Your task to perform on an android device: Open Yahoo.com Image 0: 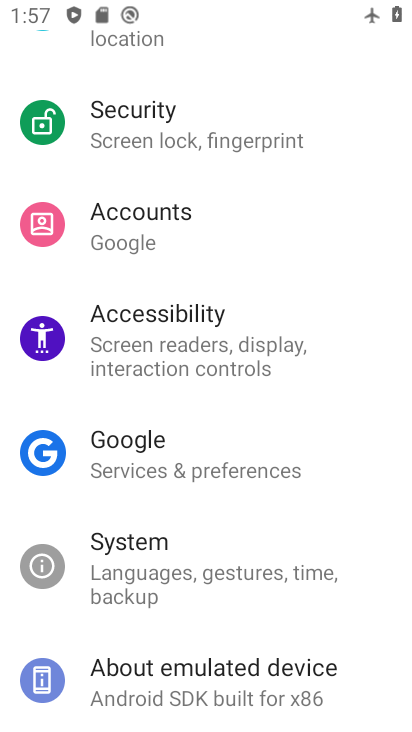
Step 0: press home button
Your task to perform on an android device: Open Yahoo.com Image 1: 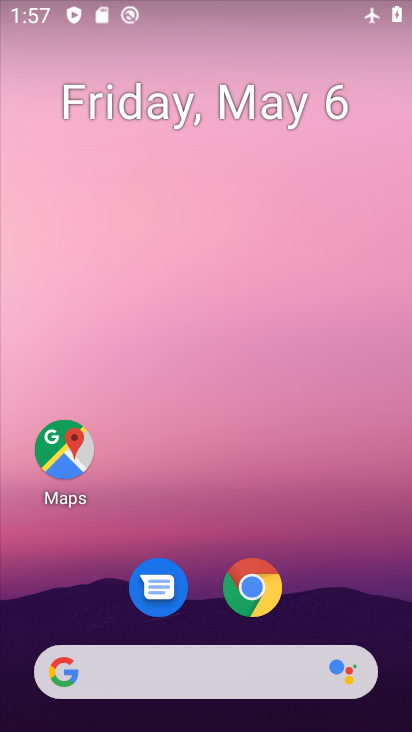
Step 1: click (242, 589)
Your task to perform on an android device: Open Yahoo.com Image 2: 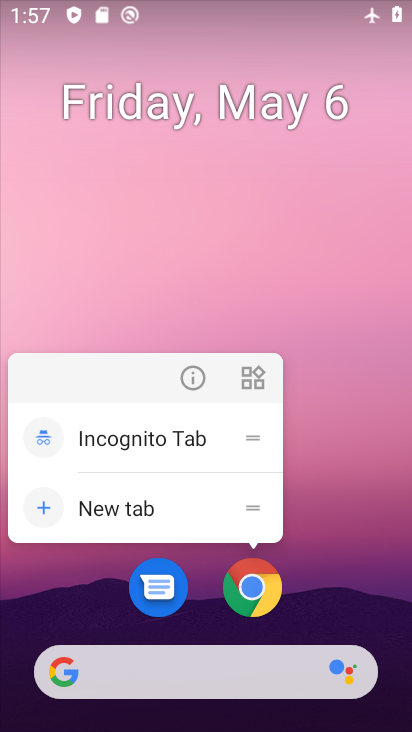
Step 2: click (242, 589)
Your task to perform on an android device: Open Yahoo.com Image 3: 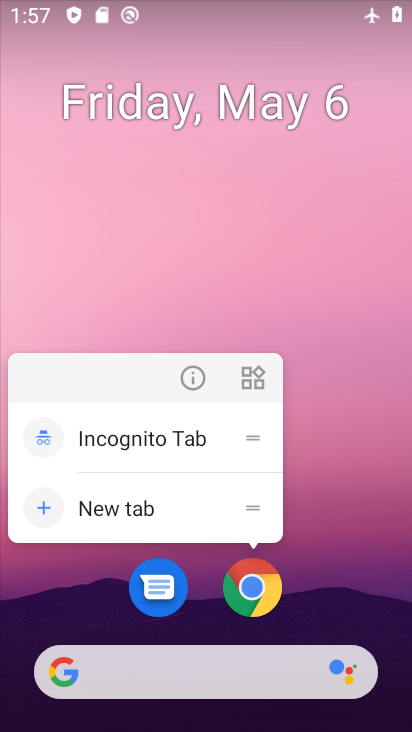
Step 3: click (249, 589)
Your task to perform on an android device: Open Yahoo.com Image 4: 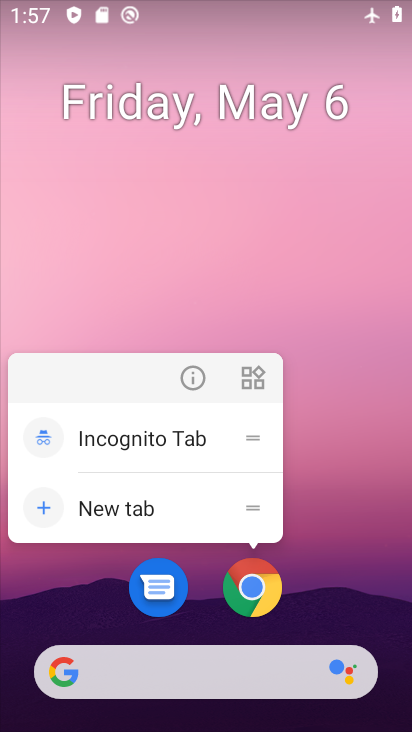
Step 4: click (251, 589)
Your task to perform on an android device: Open Yahoo.com Image 5: 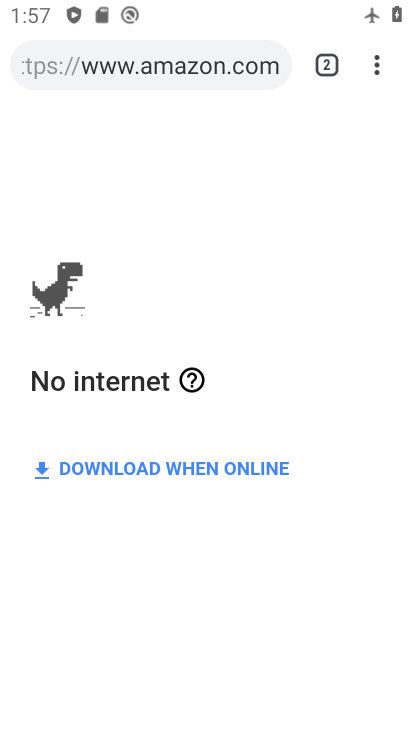
Step 5: click (244, 67)
Your task to perform on an android device: Open Yahoo.com Image 6: 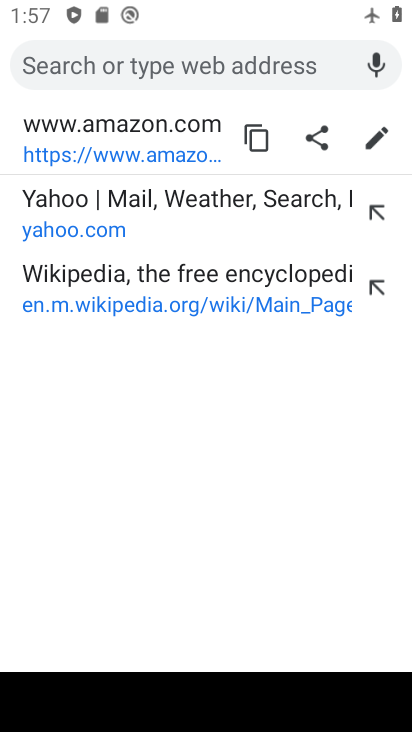
Step 6: type "yahoo.com"
Your task to perform on an android device: Open Yahoo.com Image 7: 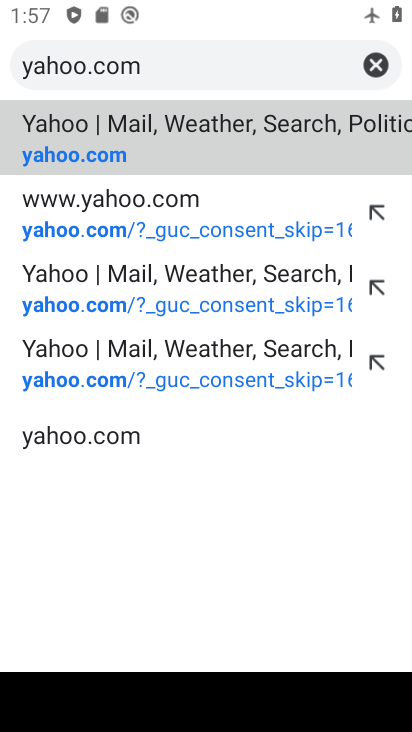
Step 7: click (244, 146)
Your task to perform on an android device: Open Yahoo.com Image 8: 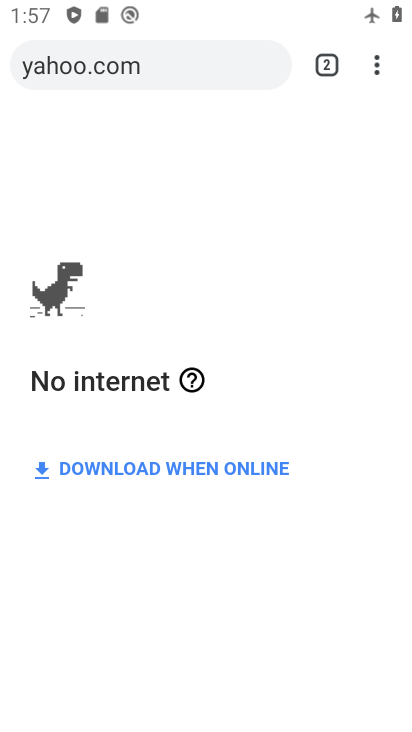
Step 8: task complete